Your task to perform on an android device: move an email to a new category in the gmail app Image 0: 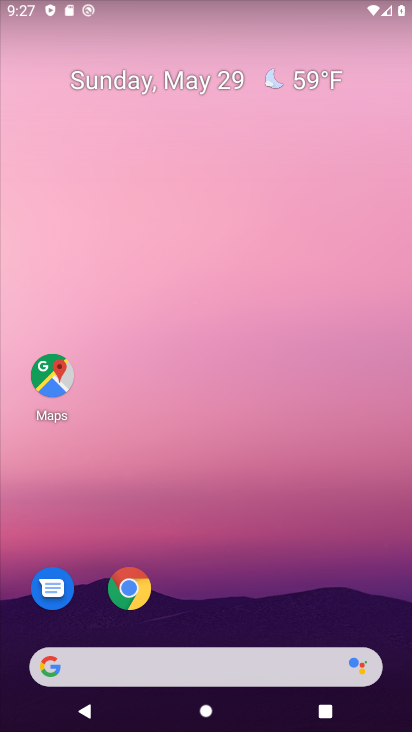
Step 0: drag from (240, 617) to (228, 28)
Your task to perform on an android device: move an email to a new category in the gmail app Image 1: 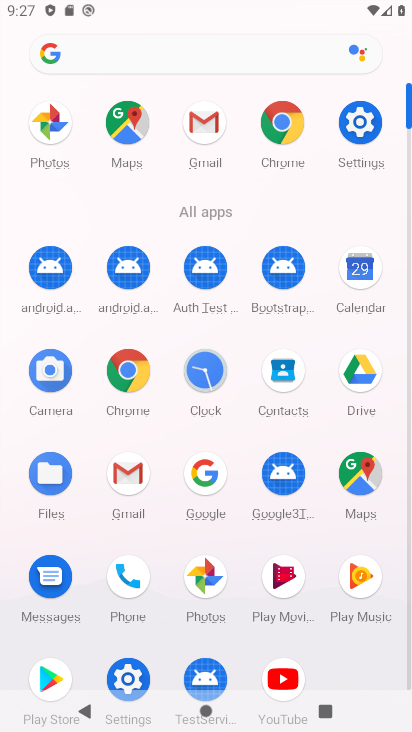
Step 1: click (204, 119)
Your task to perform on an android device: move an email to a new category in the gmail app Image 2: 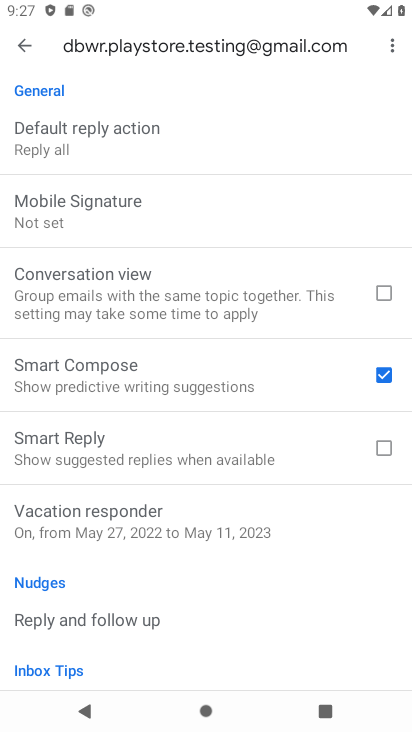
Step 2: click (20, 45)
Your task to perform on an android device: move an email to a new category in the gmail app Image 3: 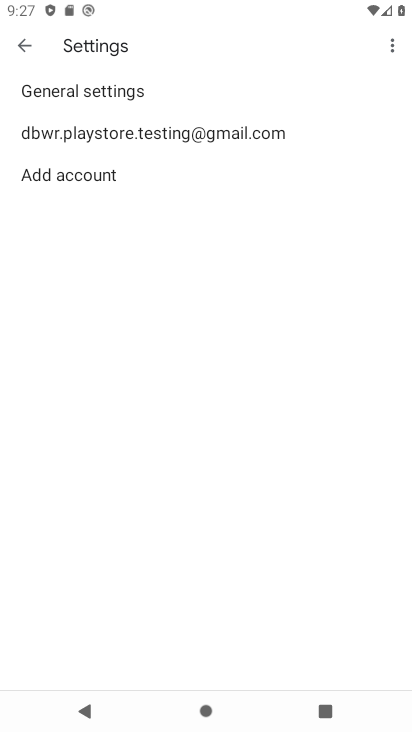
Step 3: click (20, 45)
Your task to perform on an android device: move an email to a new category in the gmail app Image 4: 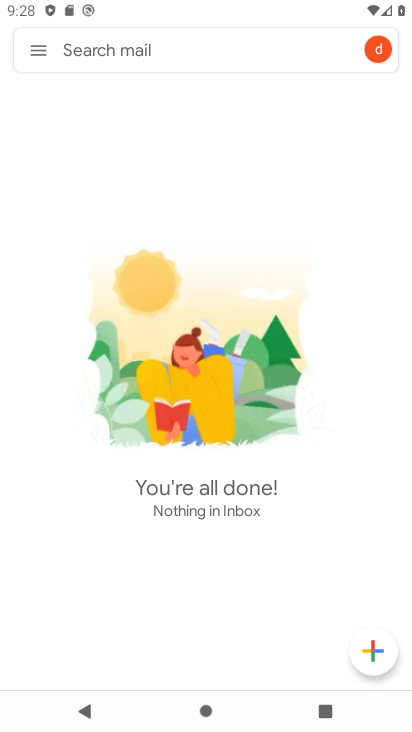
Step 4: click (31, 53)
Your task to perform on an android device: move an email to a new category in the gmail app Image 5: 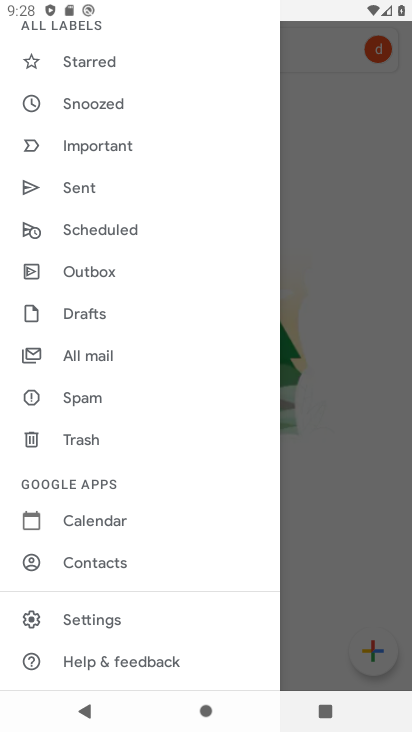
Step 5: click (130, 362)
Your task to perform on an android device: move an email to a new category in the gmail app Image 6: 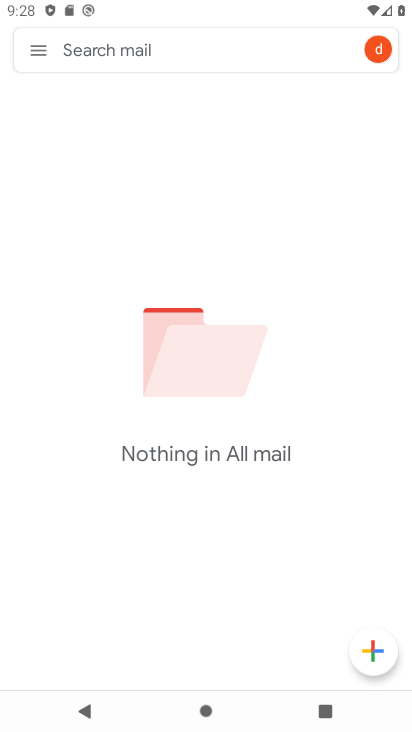
Step 6: task complete